Your task to perform on an android device: Is it going to rain this weekend? Image 0: 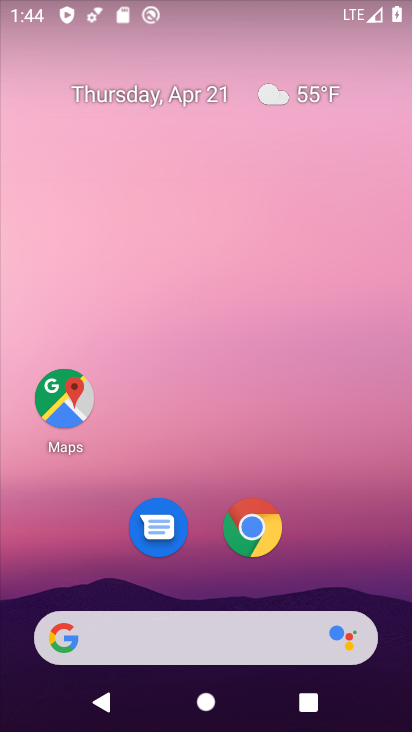
Step 0: click (229, 645)
Your task to perform on an android device: Is it going to rain this weekend? Image 1: 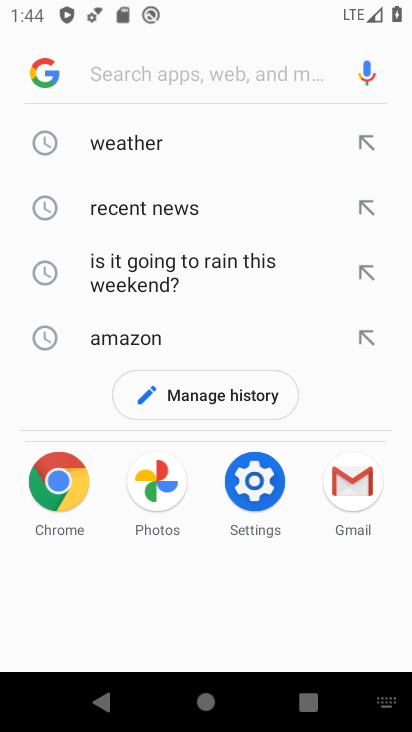
Step 1: click (129, 137)
Your task to perform on an android device: Is it going to rain this weekend? Image 2: 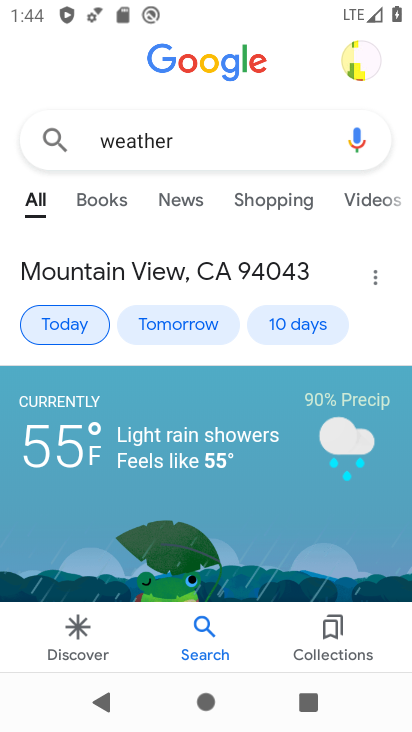
Step 2: click (318, 323)
Your task to perform on an android device: Is it going to rain this weekend? Image 3: 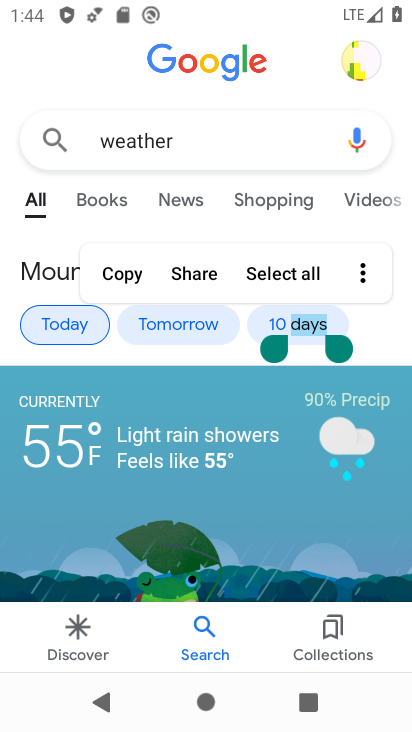
Step 3: click (318, 323)
Your task to perform on an android device: Is it going to rain this weekend? Image 4: 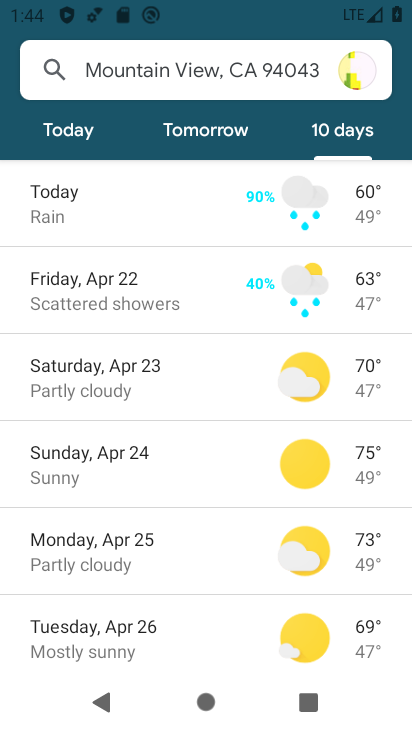
Step 4: task complete